Your task to perform on an android device: Show me recent news Image 0: 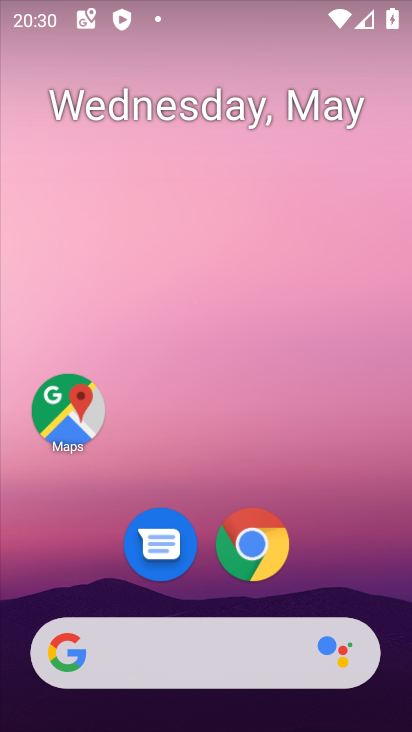
Step 0: drag from (201, 580) to (220, 196)
Your task to perform on an android device: Show me recent news Image 1: 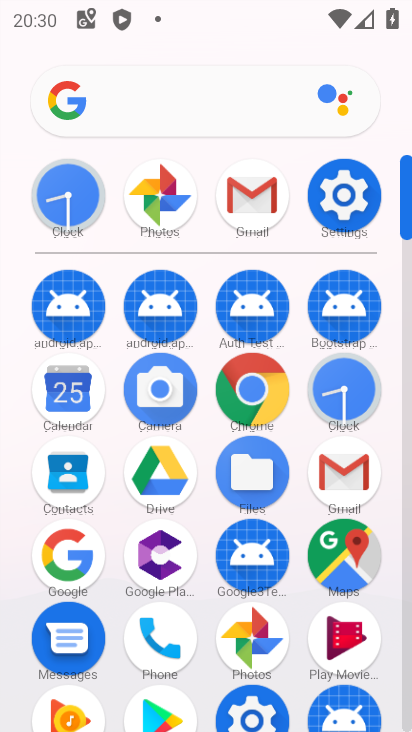
Step 1: click (71, 564)
Your task to perform on an android device: Show me recent news Image 2: 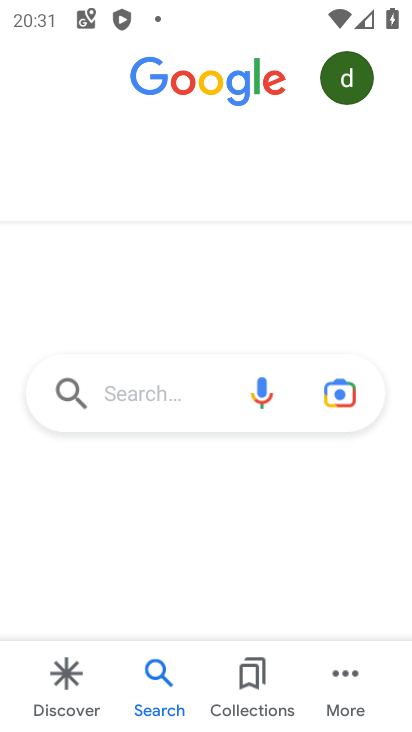
Step 2: drag from (144, 598) to (184, 246)
Your task to perform on an android device: Show me recent news Image 3: 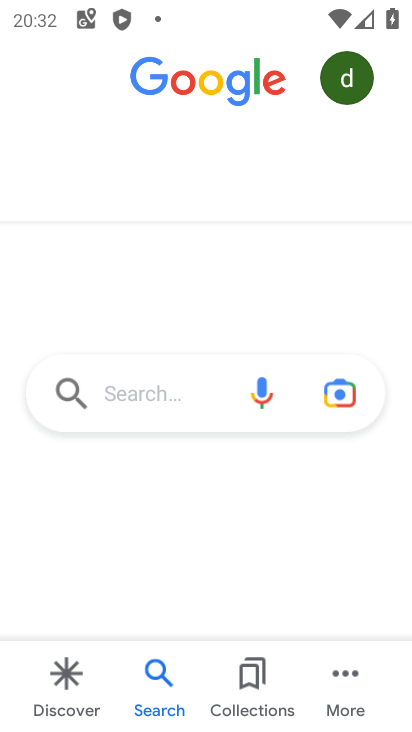
Step 3: drag from (178, 579) to (244, 16)
Your task to perform on an android device: Show me recent news Image 4: 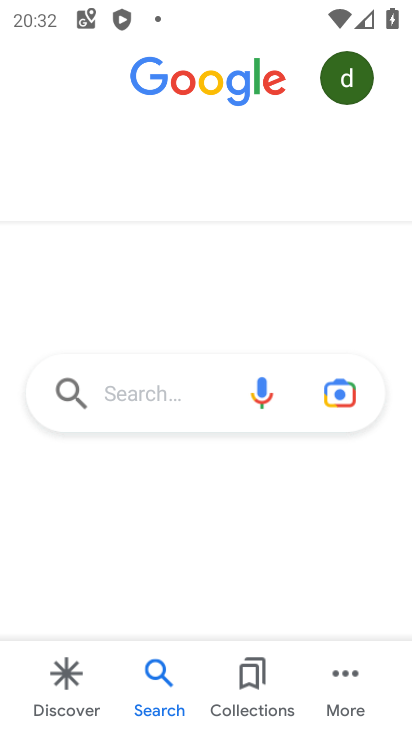
Step 4: click (89, 677)
Your task to perform on an android device: Show me recent news Image 5: 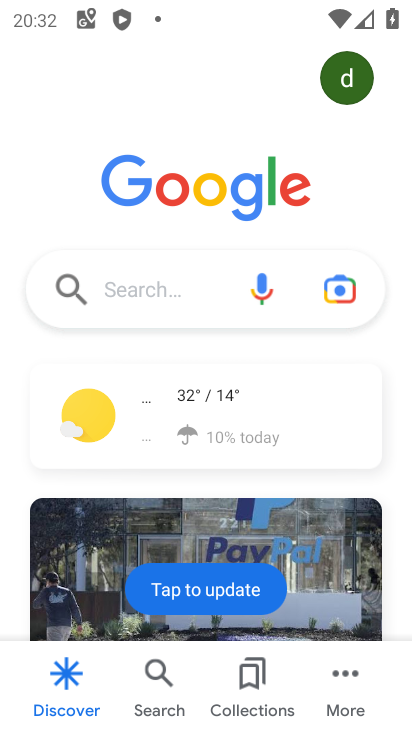
Step 5: task complete